Your task to perform on an android device: What is the recent news? Image 0: 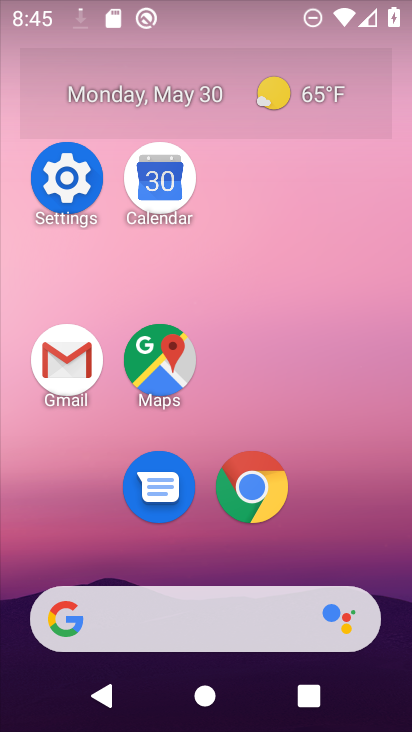
Step 0: drag from (308, 554) to (331, 206)
Your task to perform on an android device: What is the recent news? Image 1: 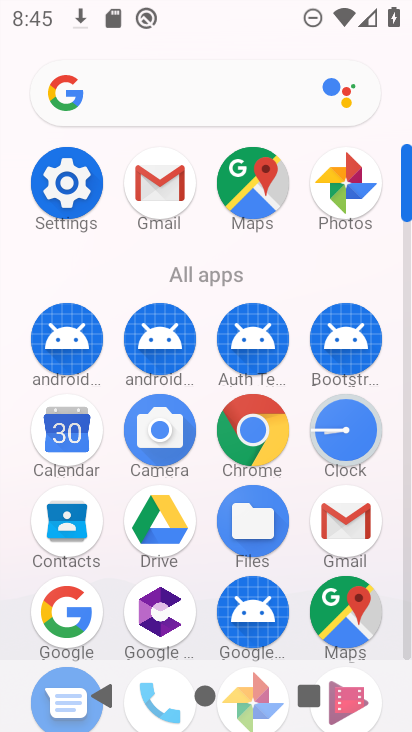
Step 1: drag from (71, 613) to (273, 317)
Your task to perform on an android device: What is the recent news? Image 2: 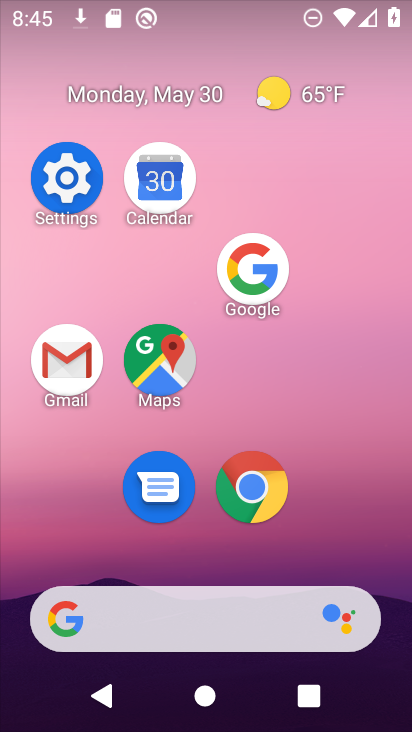
Step 2: drag from (249, 274) to (101, 279)
Your task to perform on an android device: What is the recent news? Image 3: 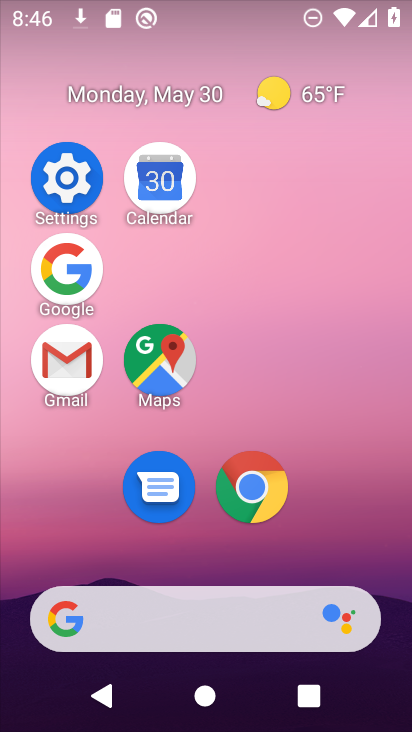
Step 3: click (84, 264)
Your task to perform on an android device: What is the recent news? Image 4: 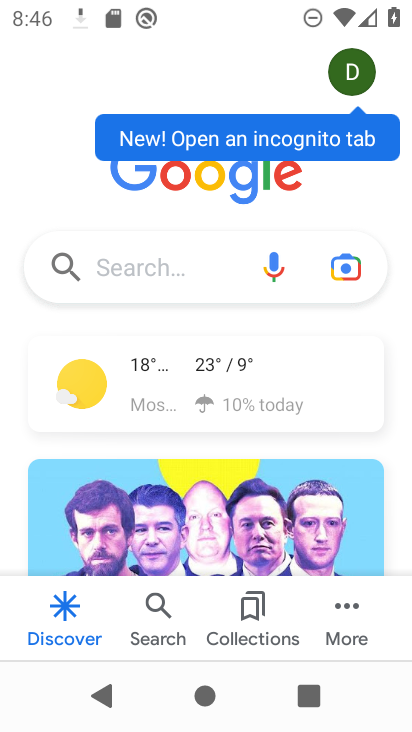
Step 4: click (110, 270)
Your task to perform on an android device: What is the recent news? Image 5: 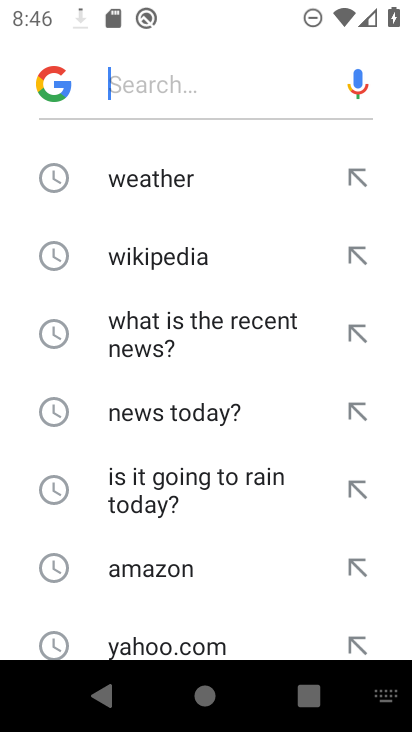
Step 5: drag from (211, 551) to (220, 304)
Your task to perform on an android device: What is the recent news? Image 6: 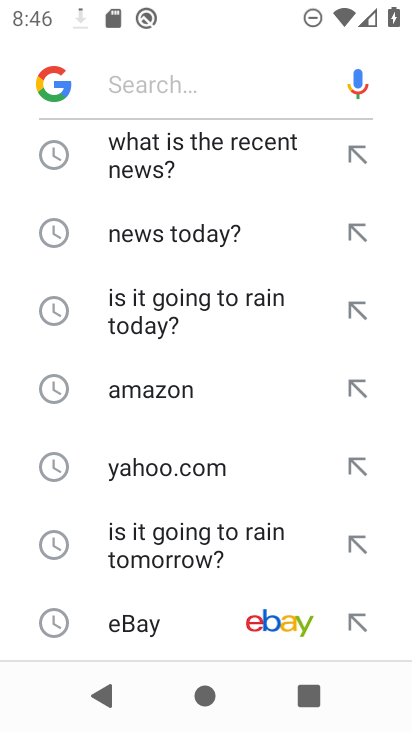
Step 6: drag from (234, 526) to (183, 232)
Your task to perform on an android device: What is the recent news? Image 7: 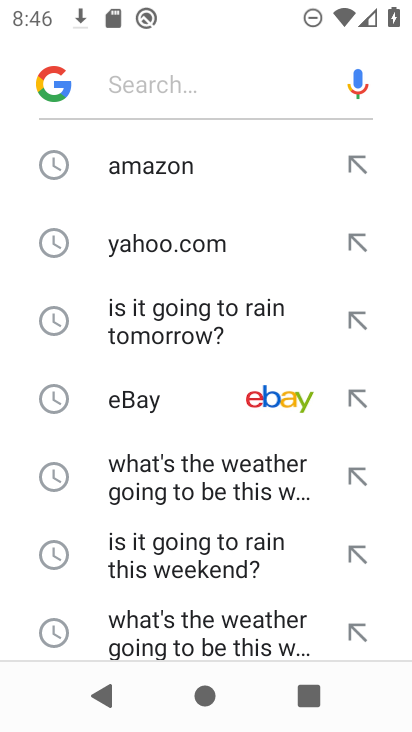
Step 7: drag from (224, 530) to (217, 287)
Your task to perform on an android device: What is the recent news? Image 8: 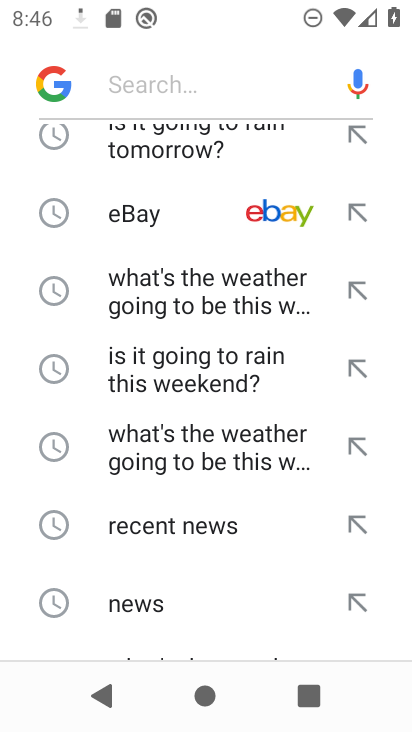
Step 8: click (193, 556)
Your task to perform on an android device: What is the recent news? Image 9: 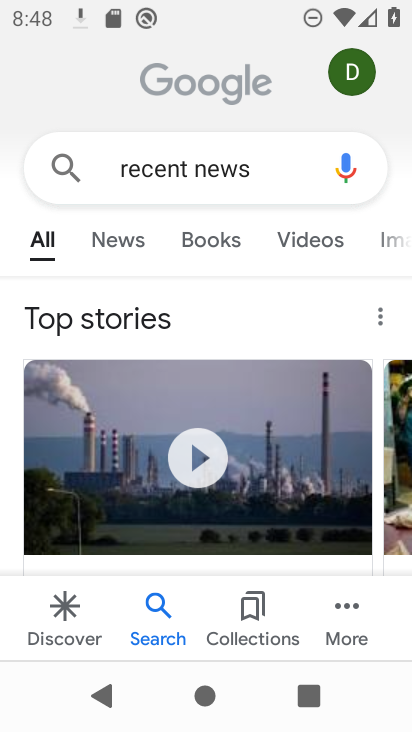
Step 9: task complete